Your task to perform on an android device: refresh tabs in the chrome app Image 0: 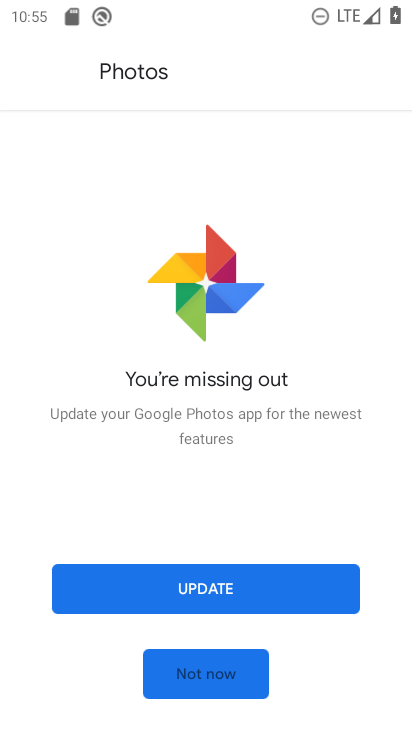
Step 0: press home button
Your task to perform on an android device: refresh tabs in the chrome app Image 1: 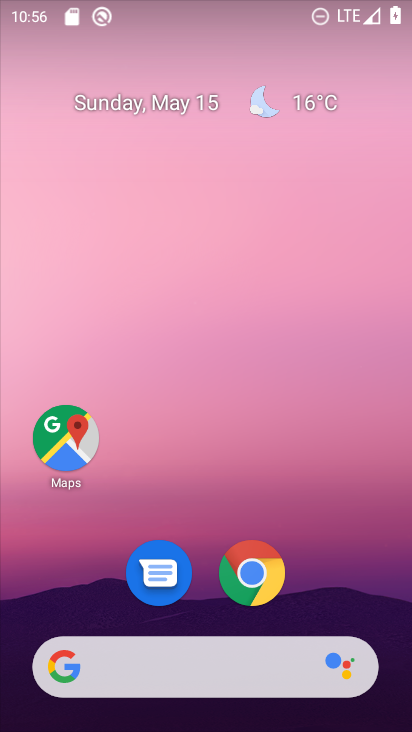
Step 1: drag from (330, 569) to (297, 19)
Your task to perform on an android device: refresh tabs in the chrome app Image 2: 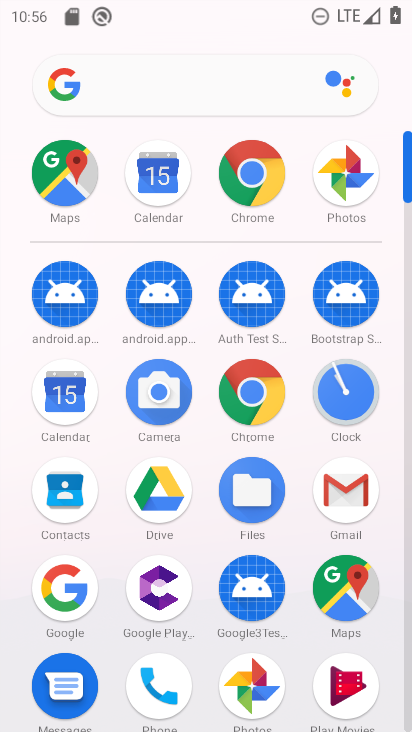
Step 2: click (261, 166)
Your task to perform on an android device: refresh tabs in the chrome app Image 3: 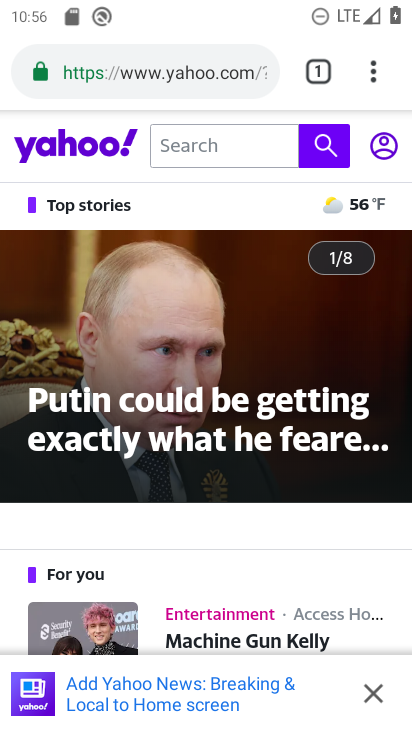
Step 3: click (375, 70)
Your task to perform on an android device: refresh tabs in the chrome app Image 4: 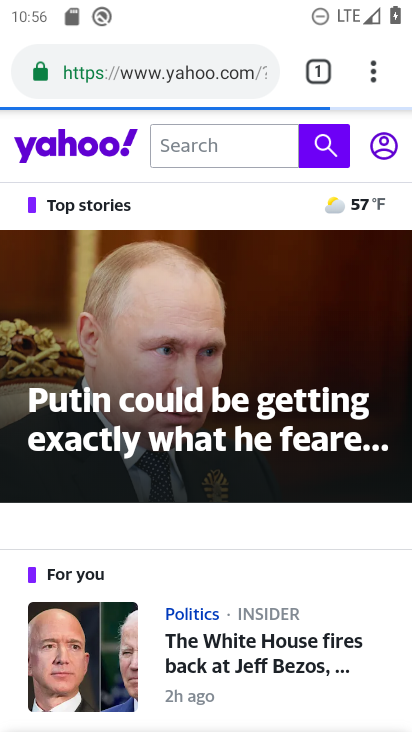
Step 4: task complete